Your task to perform on an android device: snooze an email in the gmail app Image 0: 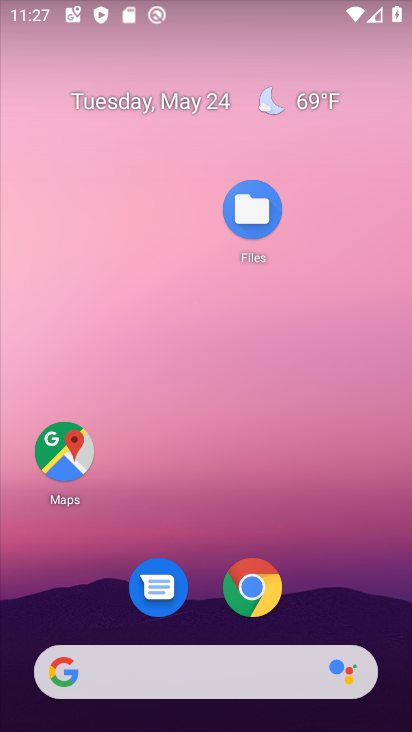
Step 0: drag from (314, 587) to (89, 160)
Your task to perform on an android device: snooze an email in the gmail app Image 1: 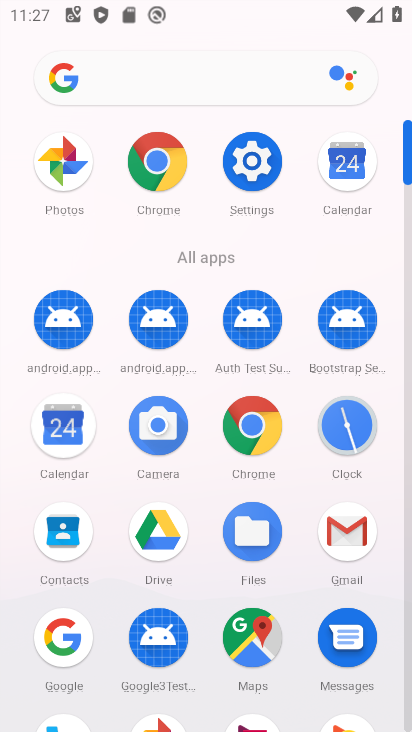
Step 1: click (365, 549)
Your task to perform on an android device: snooze an email in the gmail app Image 2: 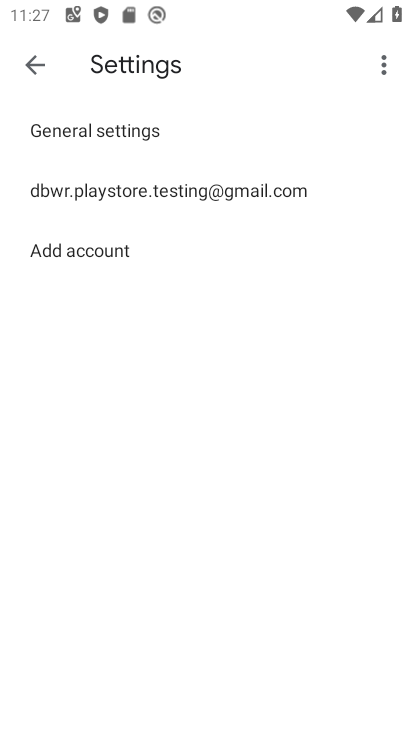
Step 2: click (32, 62)
Your task to perform on an android device: snooze an email in the gmail app Image 3: 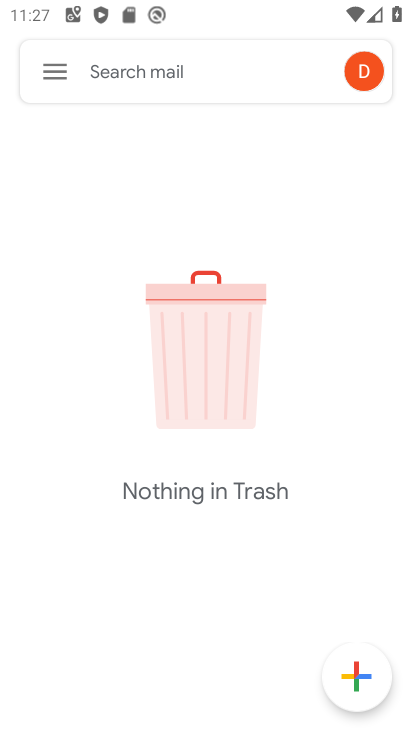
Step 3: click (57, 71)
Your task to perform on an android device: snooze an email in the gmail app Image 4: 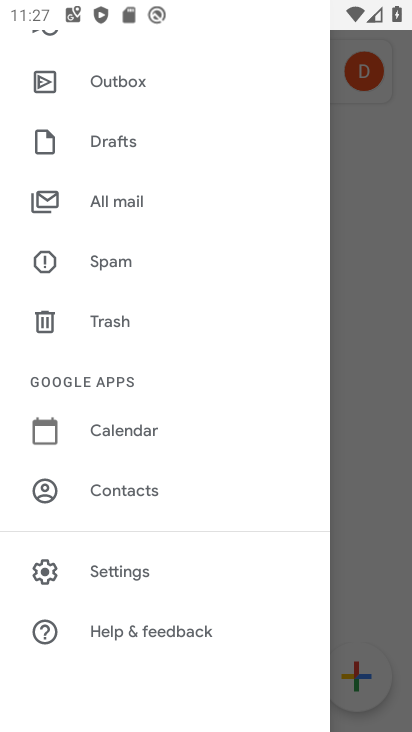
Step 4: drag from (188, 104) to (182, 462)
Your task to perform on an android device: snooze an email in the gmail app Image 5: 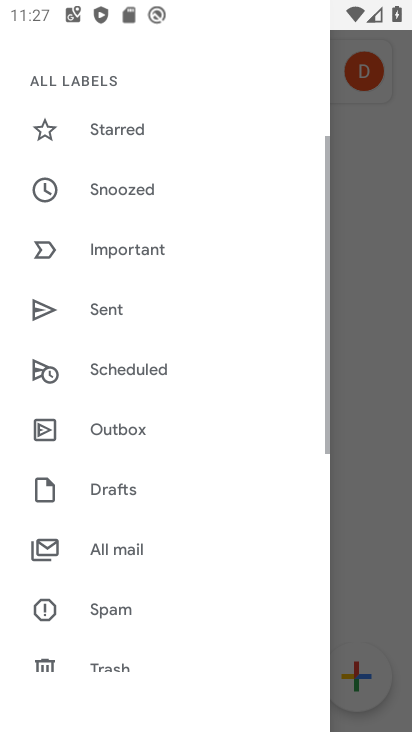
Step 5: drag from (182, 462) to (195, 621)
Your task to perform on an android device: snooze an email in the gmail app Image 6: 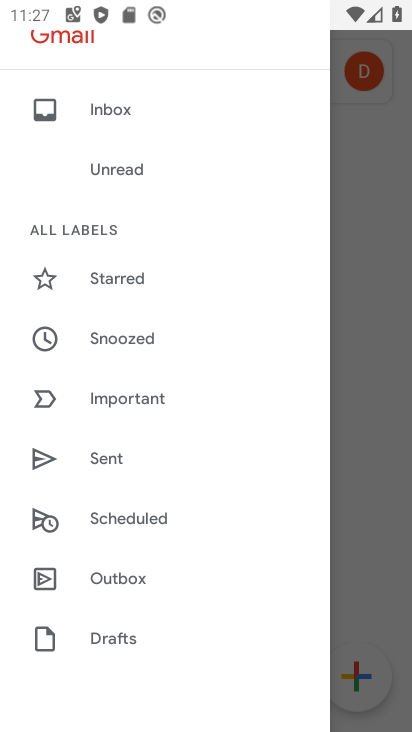
Step 6: click (142, 106)
Your task to perform on an android device: snooze an email in the gmail app Image 7: 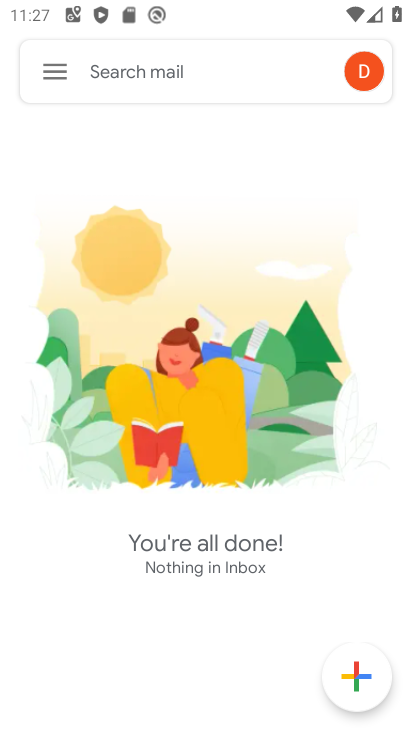
Step 7: click (188, 434)
Your task to perform on an android device: snooze an email in the gmail app Image 8: 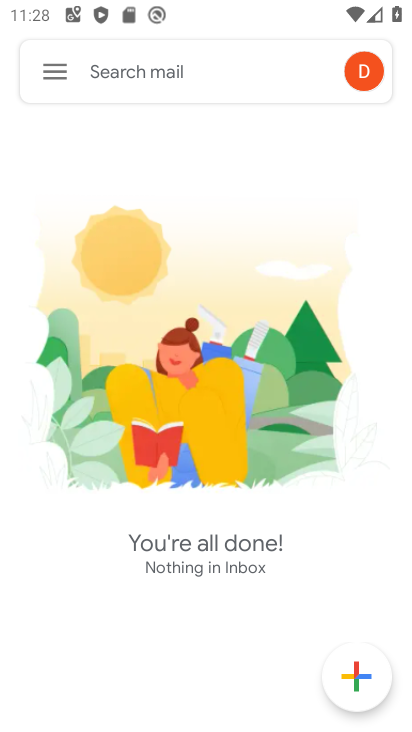
Step 8: task complete